Your task to perform on an android device: change the clock display to analog Image 0: 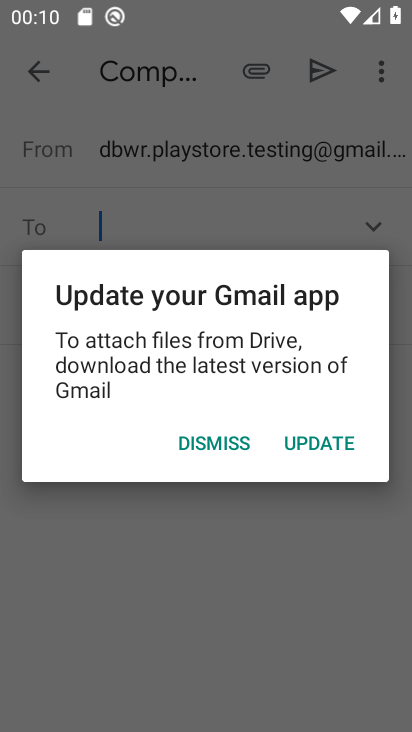
Step 0: click (218, 440)
Your task to perform on an android device: change the clock display to analog Image 1: 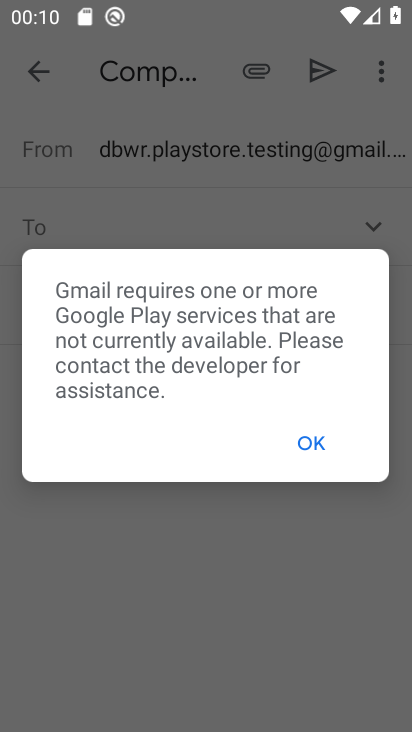
Step 1: click (35, 65)
Your task to perform on an android device: change the clock display to analog Image 2: 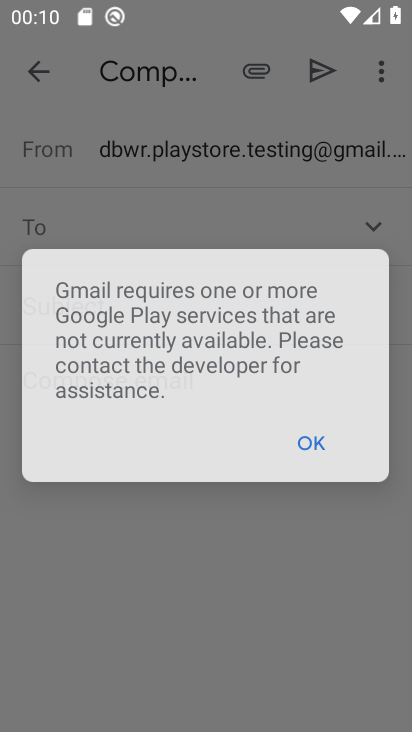
Step 2: click (314, 440)
Your task to perform on an android device: change the clock display to analog Image 3: 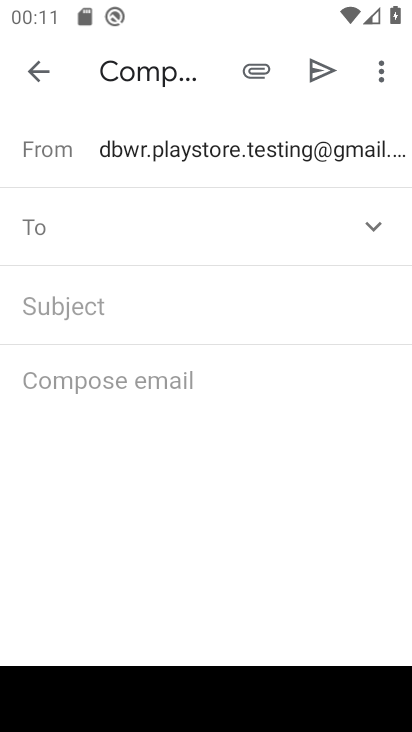
Step 3: press home button
Your task to perform on an android device: change the clock display to analog Image 4: 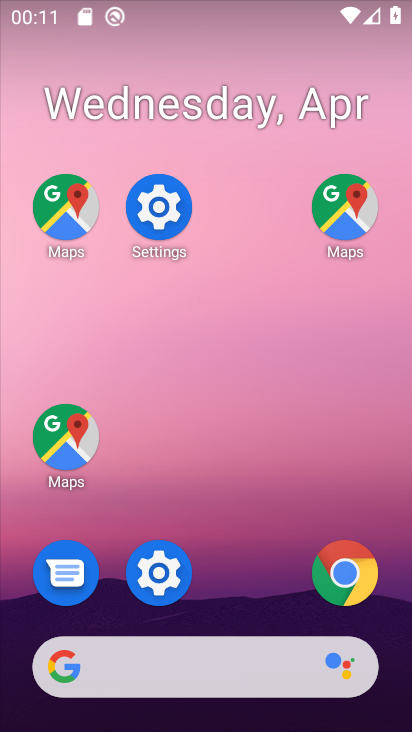
Step 4: drag from (265, 703) to (232, 213)
Your task to perform on an android device: change the clock display to analog Image 5: 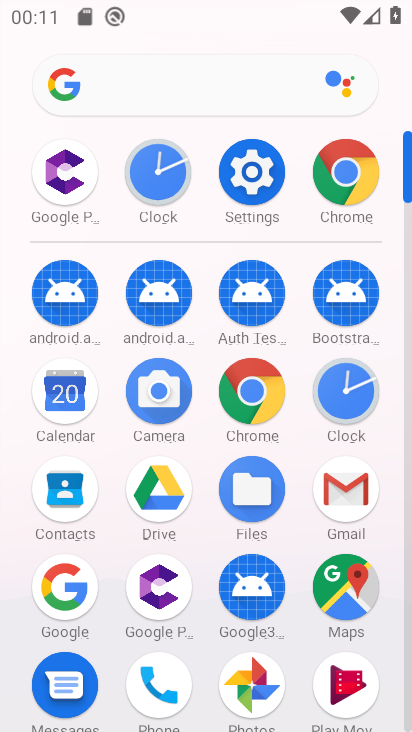
Step 5: click (342, 395)
Your task to perform on an android device: change the clock display to analog Image 6: 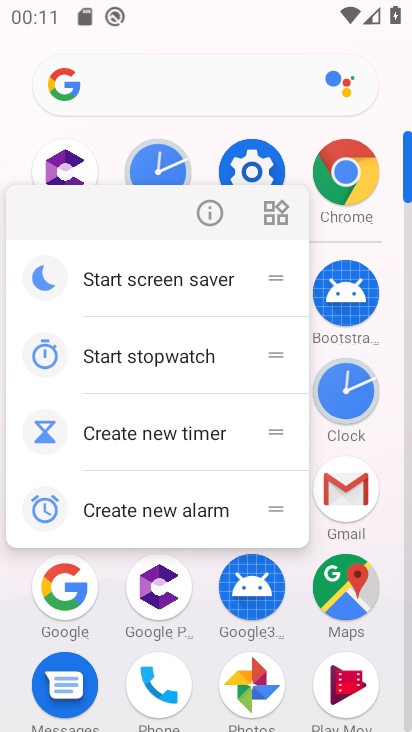
Step 6: click (342, 395)
Your task to perform on an android device: change the clock display to analog Image 7: 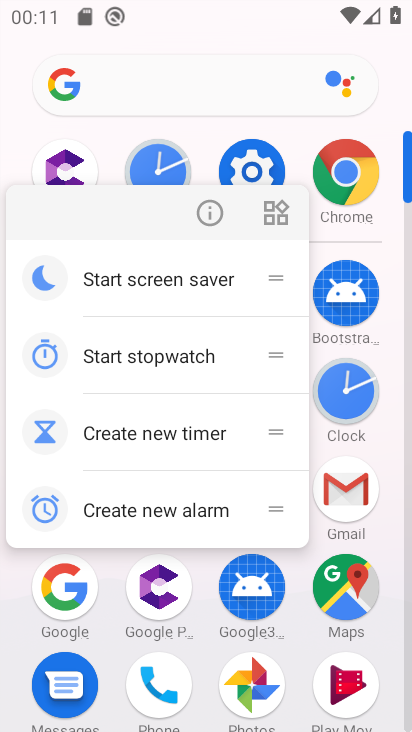
Step 7: click (342, 395)
Your task to perform on an android device: change the clock display to analog Image 8: 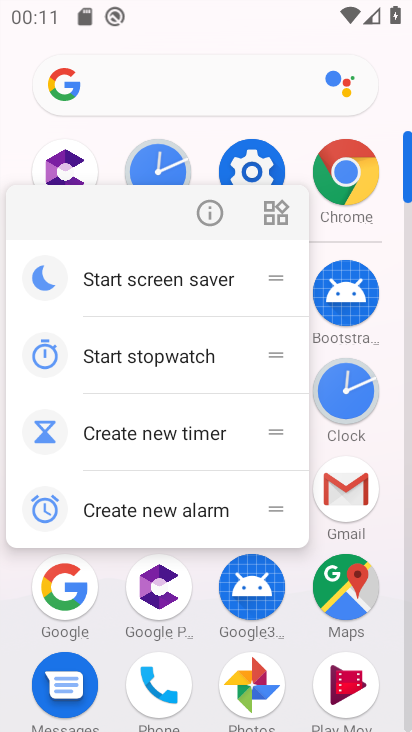
Step 8: click (348, 411)
Your task to perform on an android device: change the clock display to analog Image 9: 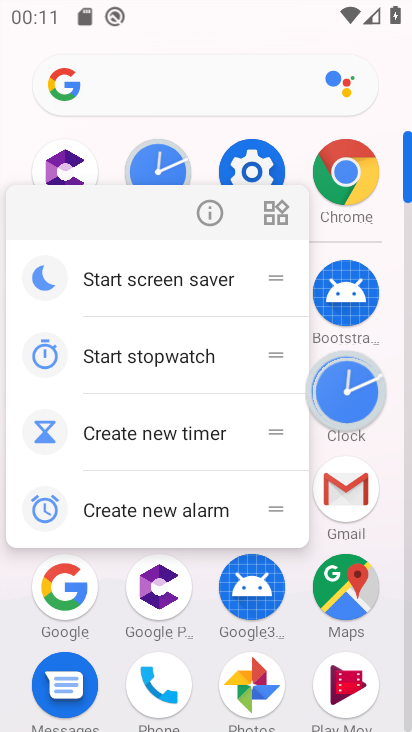
Step 9: click (338, 391)
Your task to perform on an android device: change the clock display to analog Image 10: 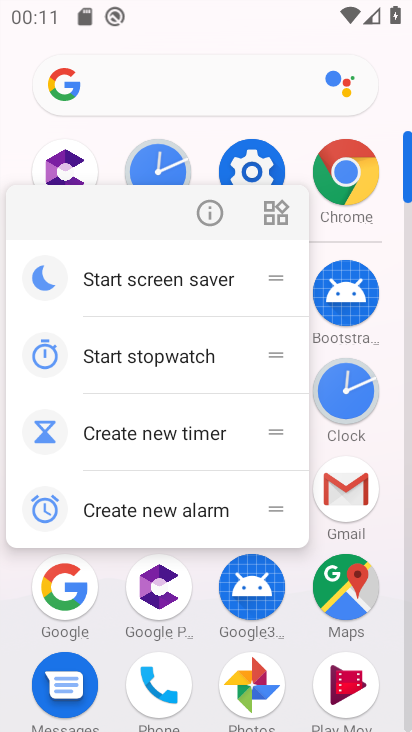
Step 10: drag from (341, 380) to (347, 431)
Your task to perform on an android device: change the clock display to analog Image 11: 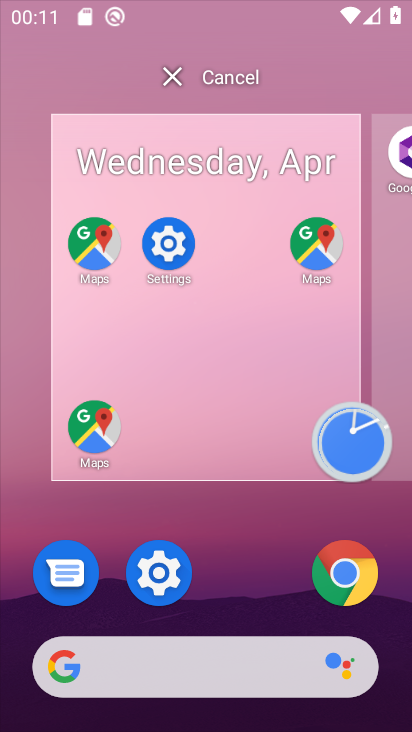
Step 11: click (349, 415)
Your task to perform on an android device: change the clock display to analog Image 12: 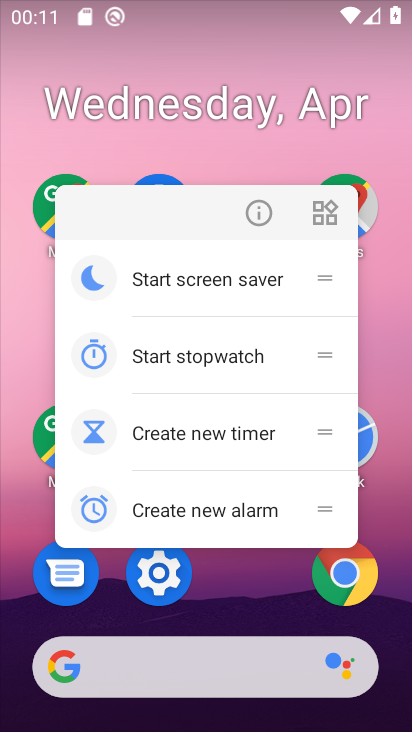
Step 12: click (338, 569)
Your task to perform on an android device: change the clock display to analog Image 13: 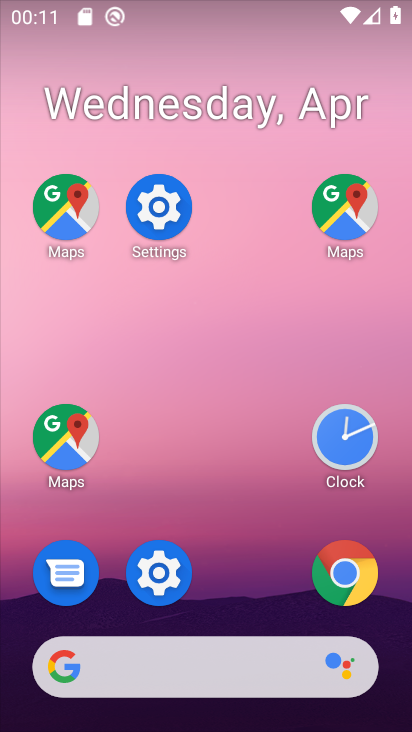
Step 13: click (348, 443)
Your task to perform on an android device: change the clock display to analog Image 14: 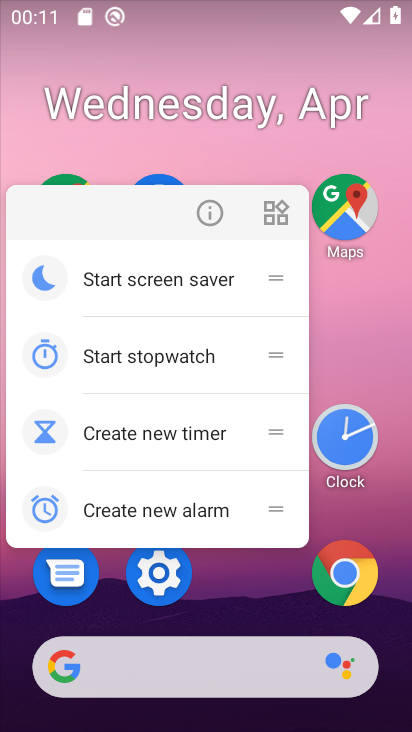
Step 14: click (339, 444)
Your task to perform on an android device: change the clock display to analog Image 15: 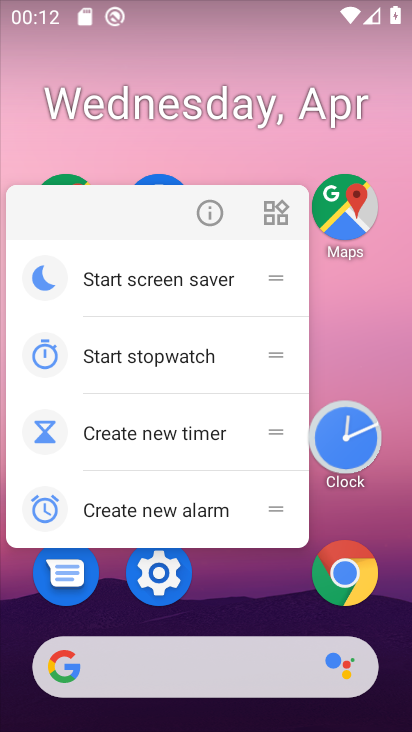
Step 15: click (339, 444)
Your task to perform on an android device: change the clock display to analog Image 16: 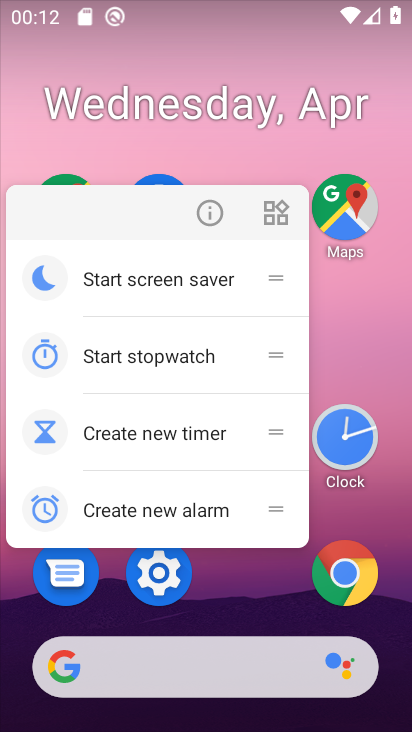
Step 16: click (328, 272)
Your task to perform on an android device: change the clock display to analog Image 17: 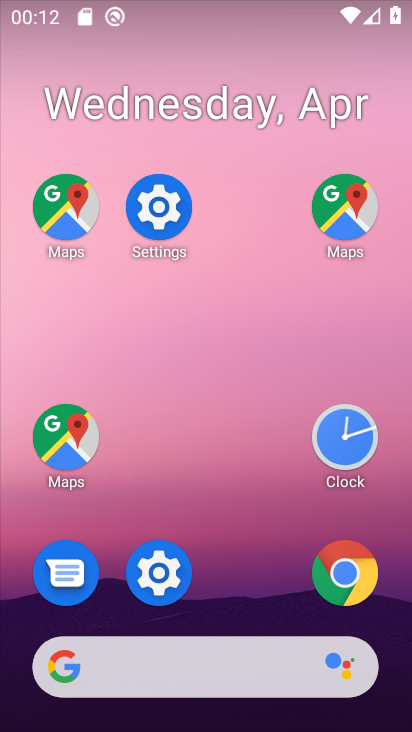
Step 17: drag from (326, 550) to (223, 0)
Your task to perform on an android device: change the clock display to analog Image 18: 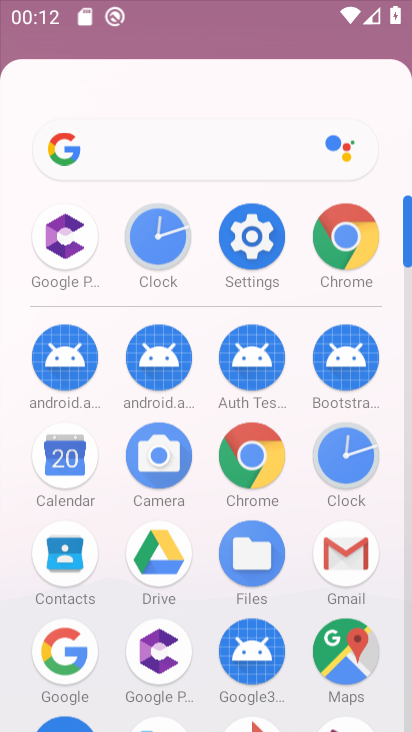
Step 18: drag from (320, 541) to (127, 30)
Your task to perform on an android device: change the clock display to analog Image 19: 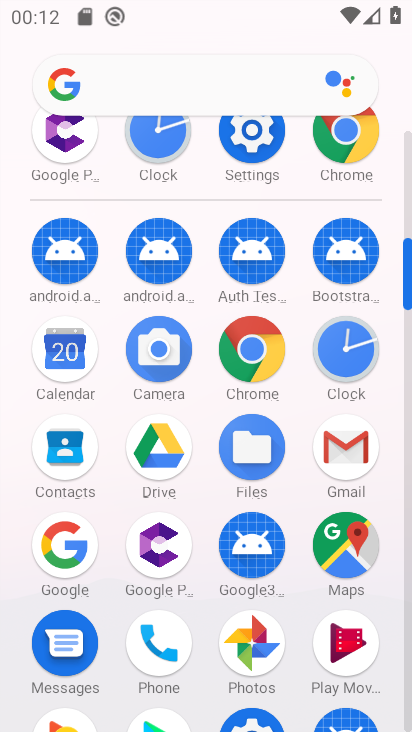
Step 19: click (354, 343)
Your task to perform on an android device: change the clock display to analog Image 20: 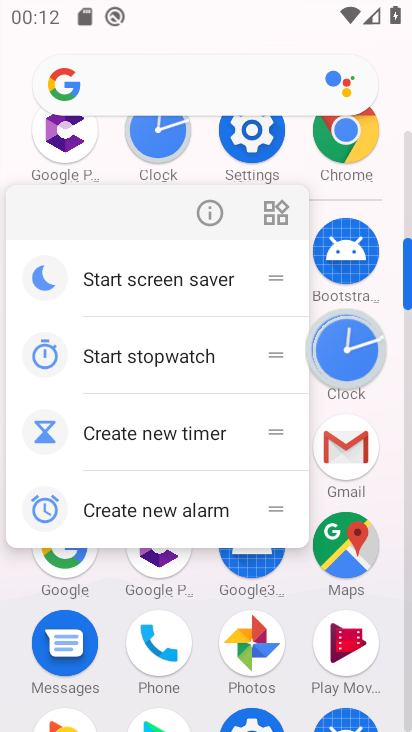
Step 20: click (354, 343)
Your task to perform on an android device: change the clock display to analog Image 21: 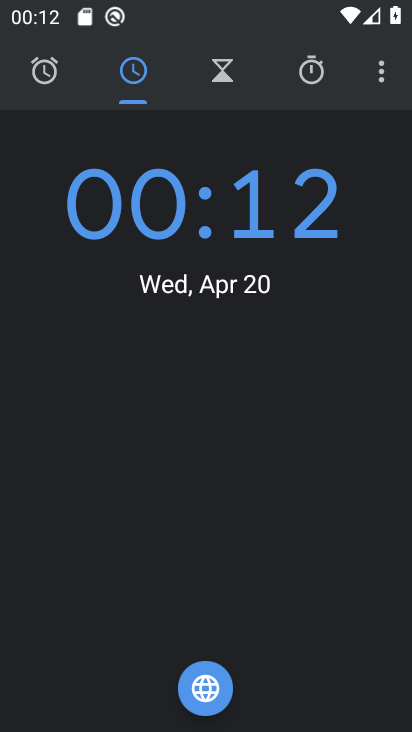
Step 21: click (376, 73)
Your task to perform on an android device: change the clock display to analog Image 22: 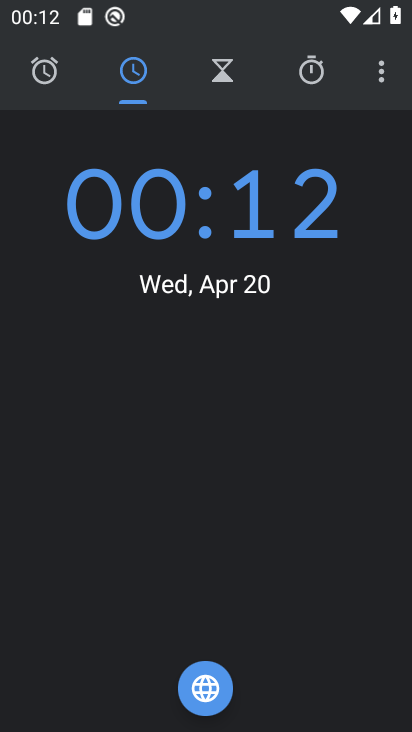
Step 22: click (378, 78)
Your task to perform on an android device: change the clock display to analog Image 23: 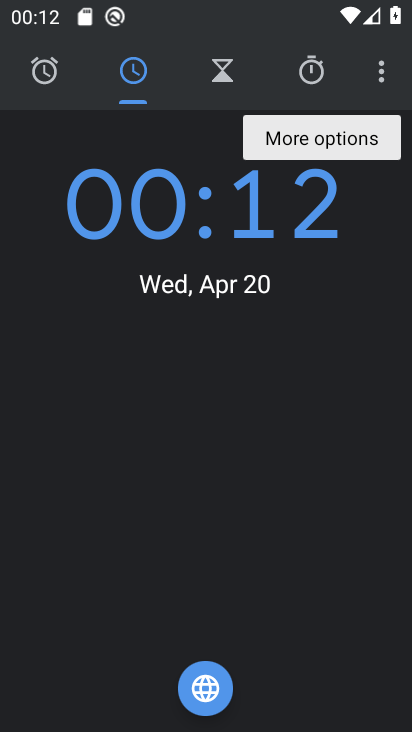
Step 23: click (342, 132)
Your task to perform on an android device: change the clock display to analog Image 24: 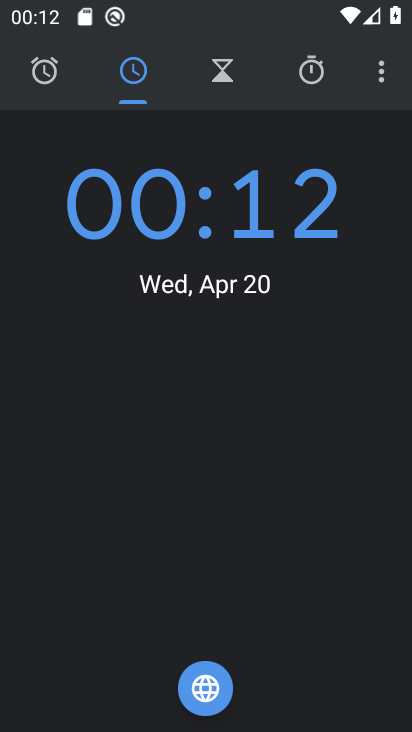
Step 24: click (381, 86)
Your task to perform on an android device: change the clock display to analog Image 25: 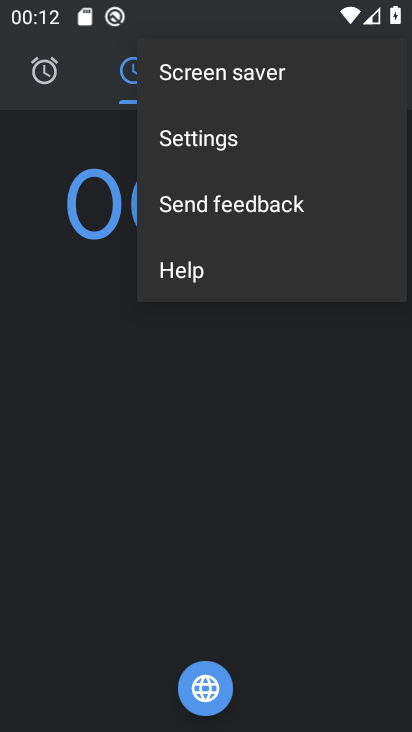
Step 25: click (381, 86)
Your task to perform on an android device: change the clock display to analog Image 26: 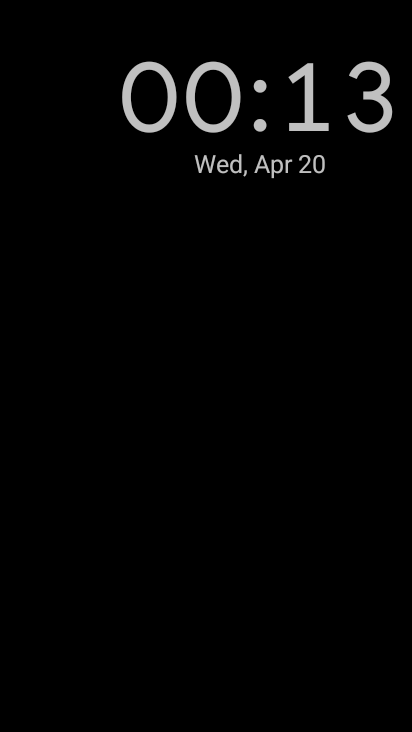
Step 26: press home button
Your task to perform on an android device: change the clock display to analog Image 27: 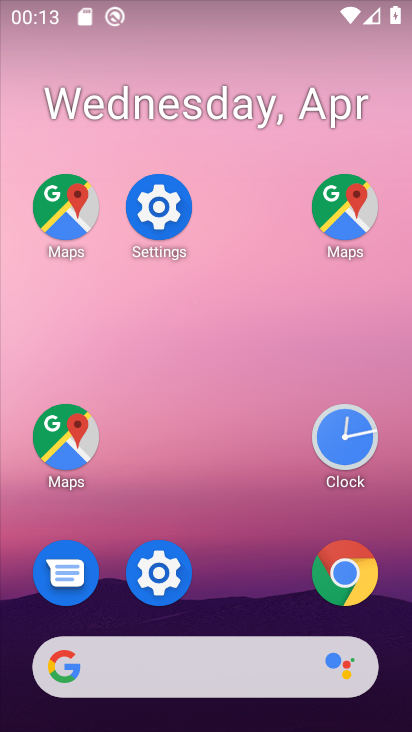
Step 27: click (358, 449)
Your task to perform on an android device: change the clock display to analog Image 28: 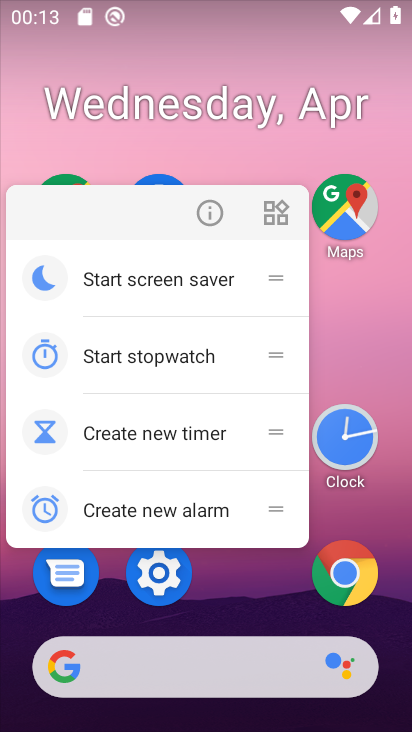
Step 28: click (345, 435)
Your task to perform on an android device: change the clock display to analog Image 29: 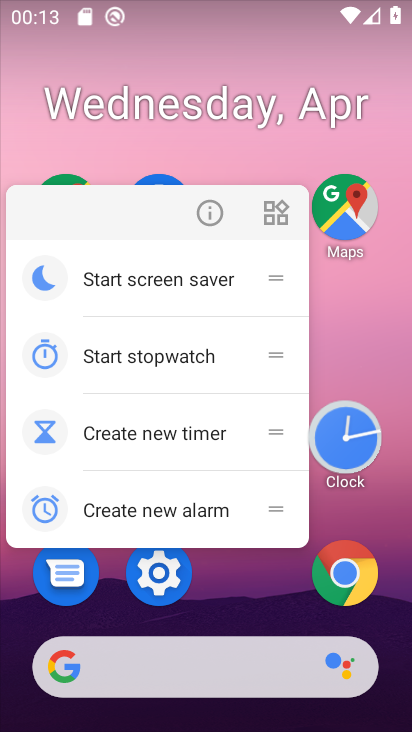
Step 29: click (344, 434)
Your task to perform on an android device: change the clock display to analog Image 30: 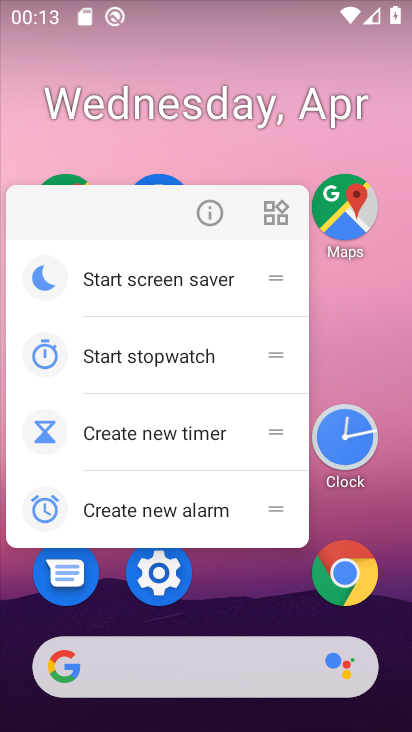
Step 30: click (344, 434)
Your task to perform on an android device: change the clock display to analog Image 31: 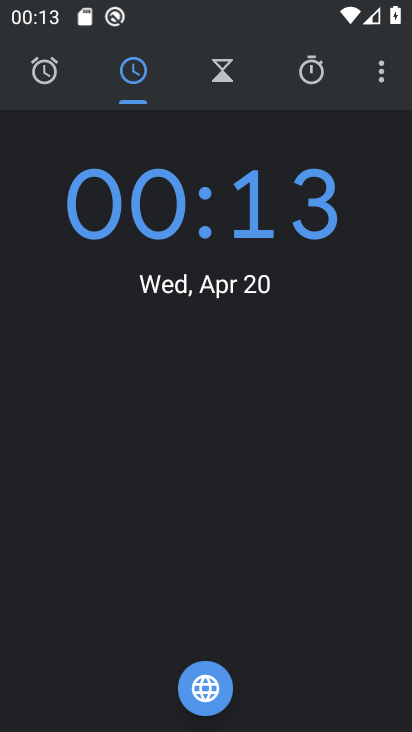
Step 31: click (382, 75)
Your task to perform on an android device: change the clock display to analog Image 32: 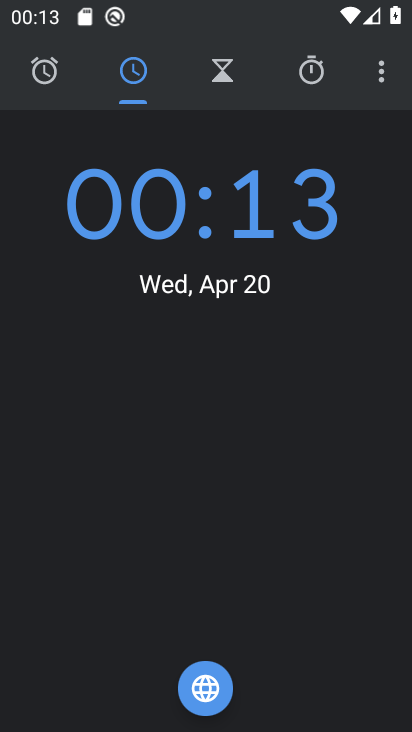
Step 32: click (384, 80)
Your task to perform on an android device: change the clock display to analog Image 33: 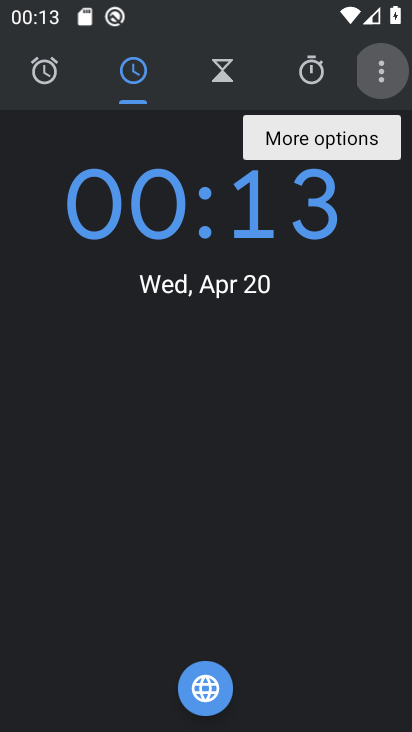
Step 33: click (384, 80)
Your task to perform on an android device: change the clock display to analog Image 34: 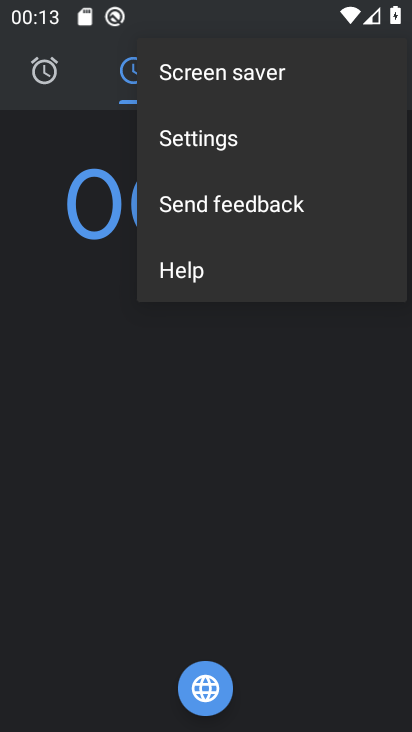
Step 34: click (184, 140)
Your task to perform on an android device: change the clock display to analog Image 35: 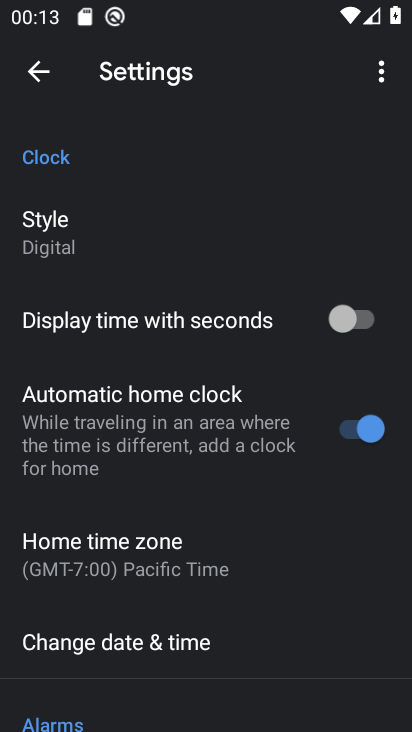
Step 35: click (86, 236)
Your task to perform on an android device: change the clock display to analog Image 36: 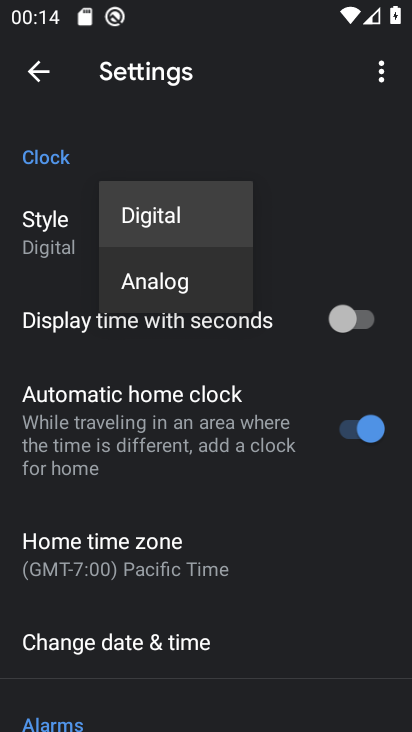
Step 36: click (151, 275)
Your task to perform on an android device: change the clock display to analog Image 37: 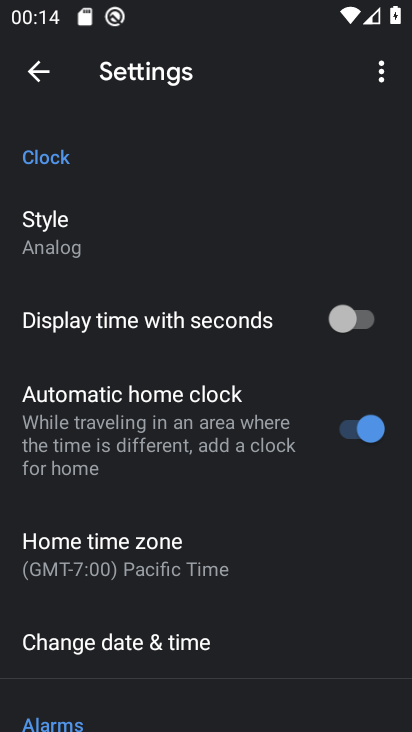
Step 37: task complete